Your task to perform on an android device: toggle improve location accuracy Image 0: 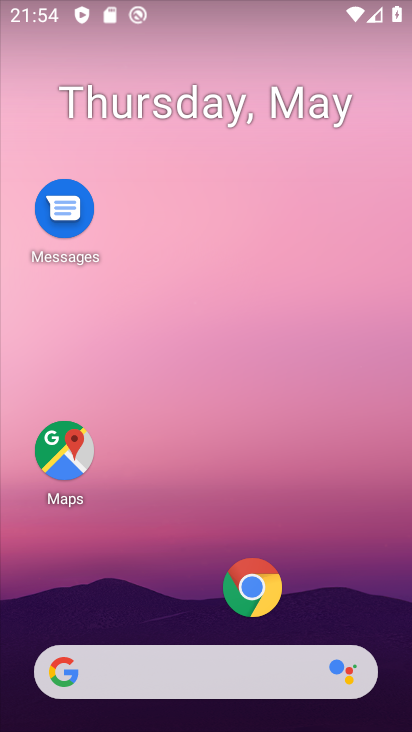
Step 0: drag from (194, 617) to (174, 15)
Your task to perform on an android device: toggle improve location accuracy Image 1: 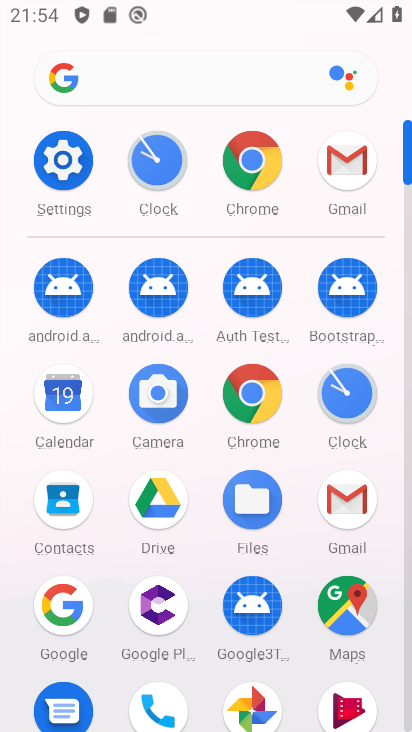
Step 1: click (65, 163)
Your task to perform on an android device: toggle improve location accuracy Image 2: 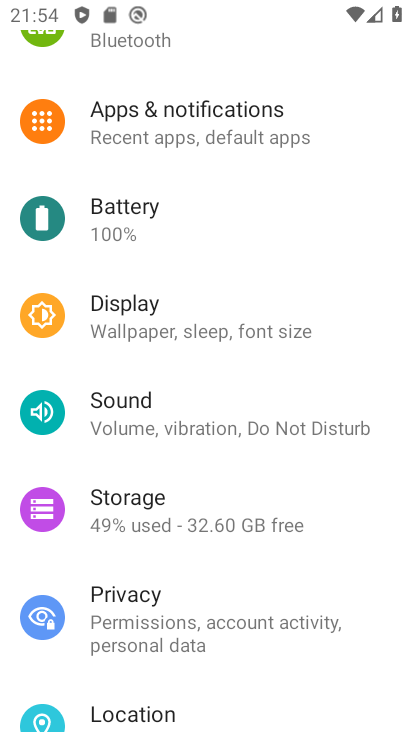
Step 2: click (125, 702)
Your task to perform on an android device: toggle improve location accuracy Image 3: 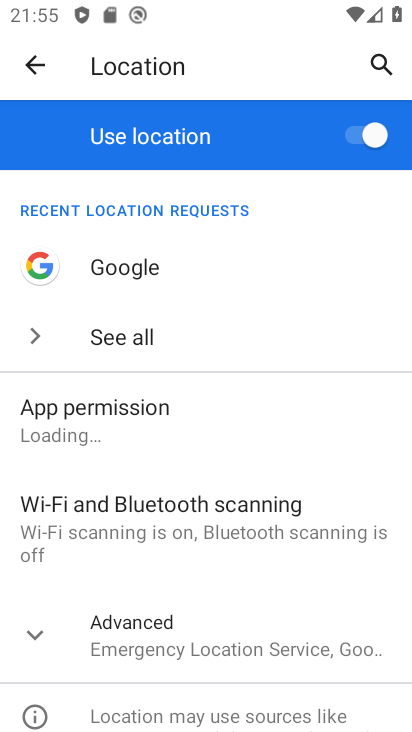
Step 3: click (191, 649)
Your task to perform on an android device: toggle improve location accuracy Image 4: 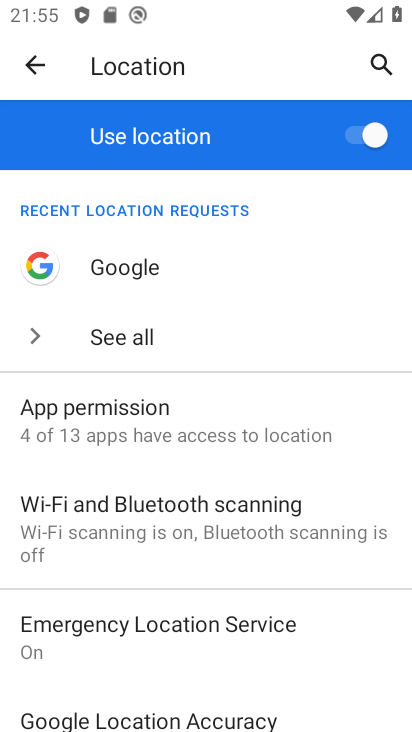
Step 4: drag from (189, 652) to (167, 247)
Your task to perform on an android device: toggle improve location accuracy Image 5: 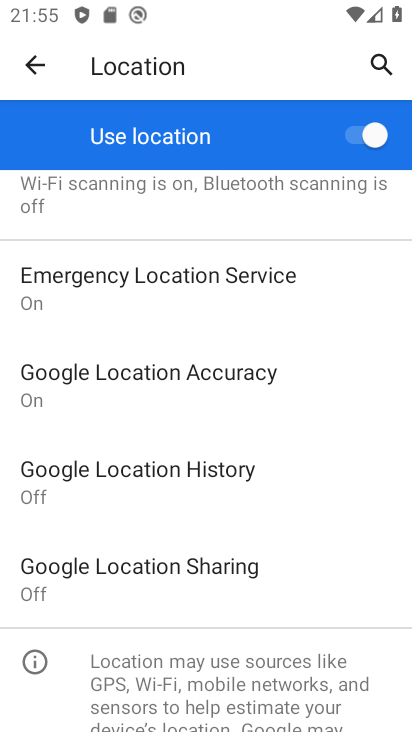
Step 5: click (186, 379)
Your task to perform on an android device: toggle improve location accuracy Image 6: 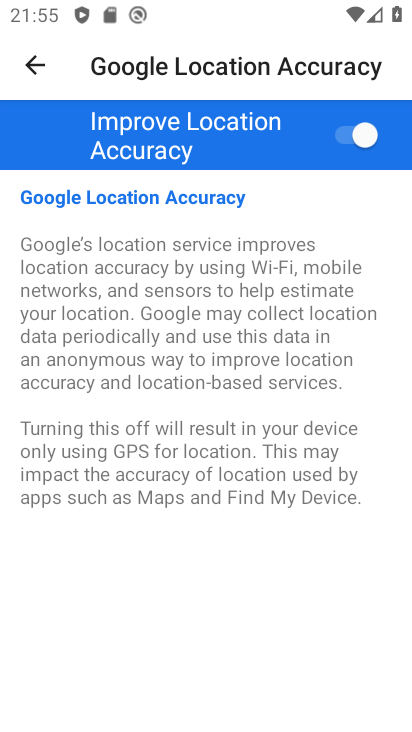
Step 6: click (343, 144)
Your task to perform on an android device: toggle improve location accuracy Image 7: 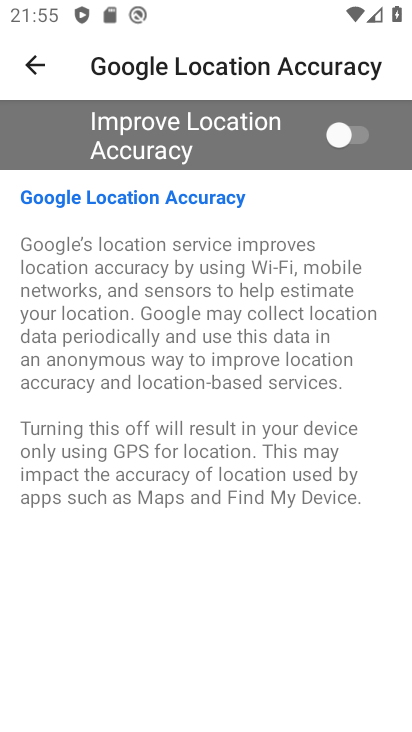
Step 7: task complete